Your task to perform on an android device: Set the phone to "Do not disturb". Image 0: 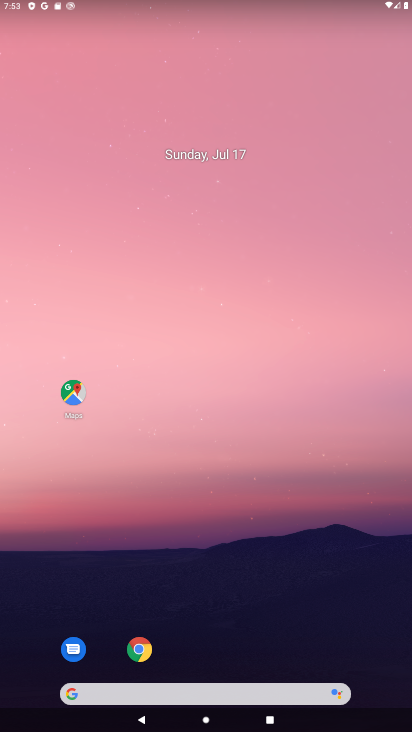
Step 0: drag from (214, 665) to (145, 141)
Your task to perform on an android device: Set the phone to "Do not disturb". Image 1: 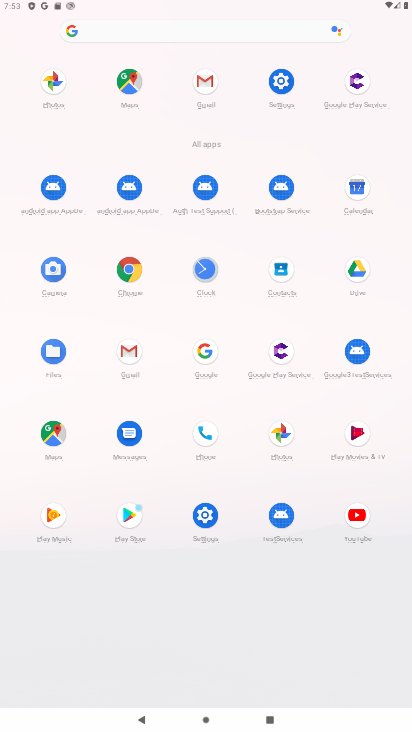
Step 1: click (210, 518)
Your task to perform on an android device: Set the phone to "Do not disturb". Image 2: 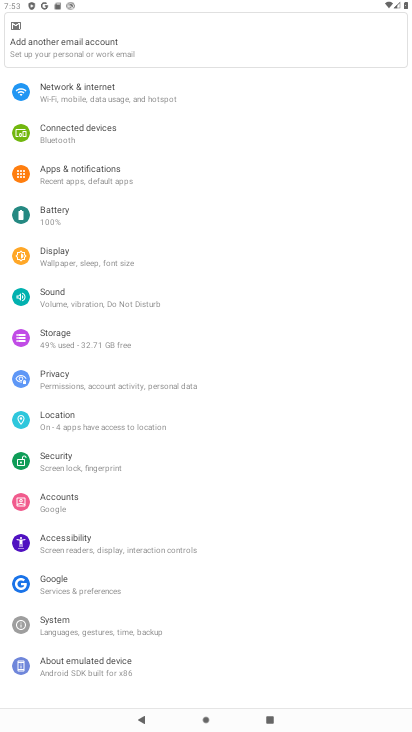
Step 2: drag from (134, 163) to (162, 394)
Your task to perform on an android device: Set the phone to "Do not disturb". Image 3: 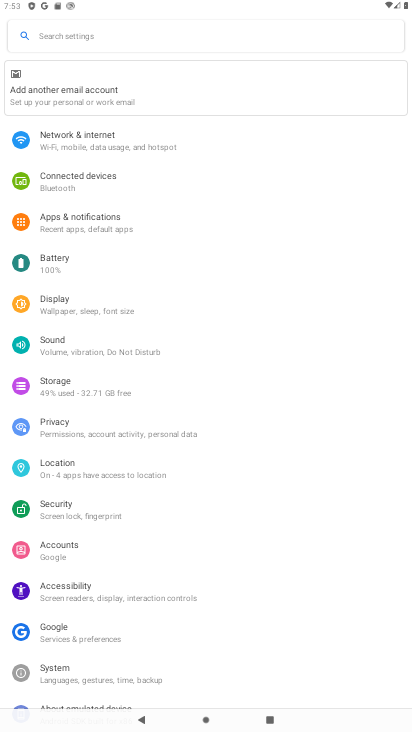
Step 3: drag from (250, 1) to (234, 719)
Your task to perform on an android device: Set the phone to "Do not disturb". Image 4: 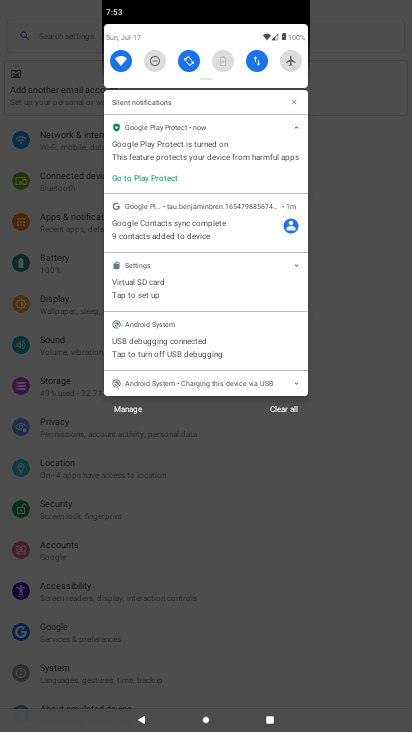
Step 4: click (147, 55)
Your task to perform on an android device: Set the phone to "Do not disturb". Image 5: 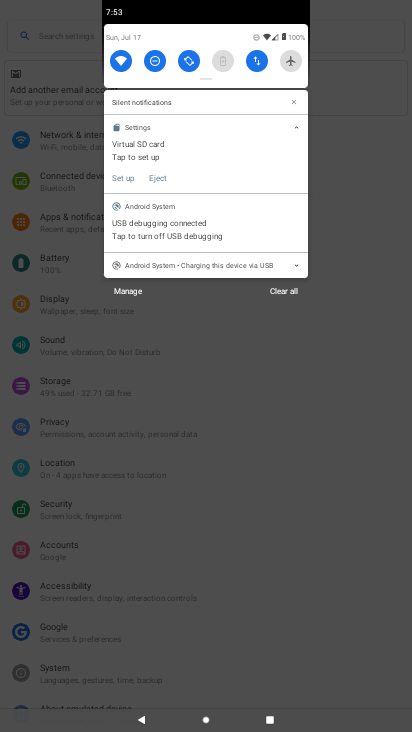
Step 5: task complete